Your task to perform on an android device: Open location settings Image 0: 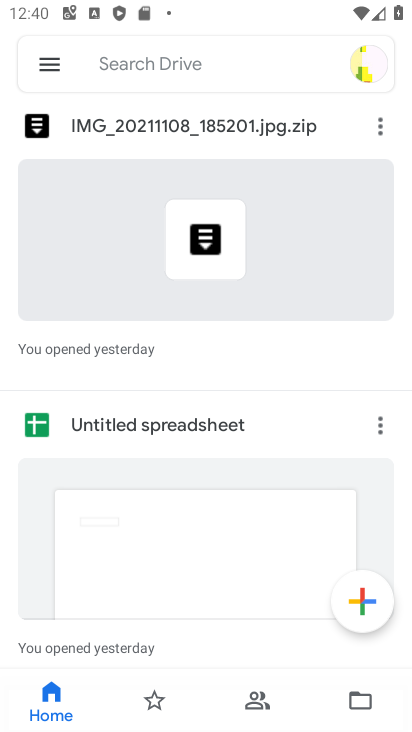
Step 0: press home button
Your task to perform on an android device: Open location settings Image 1: 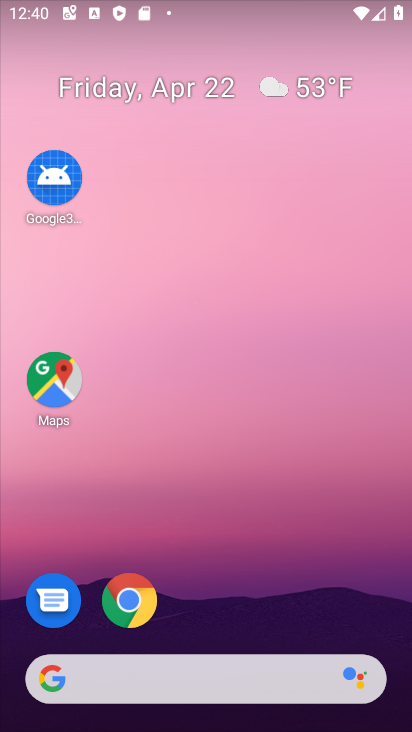
Step 1: drag from (228, 521) to (170, 76)
Your task to perform on an android device: Open location settings Image 2: 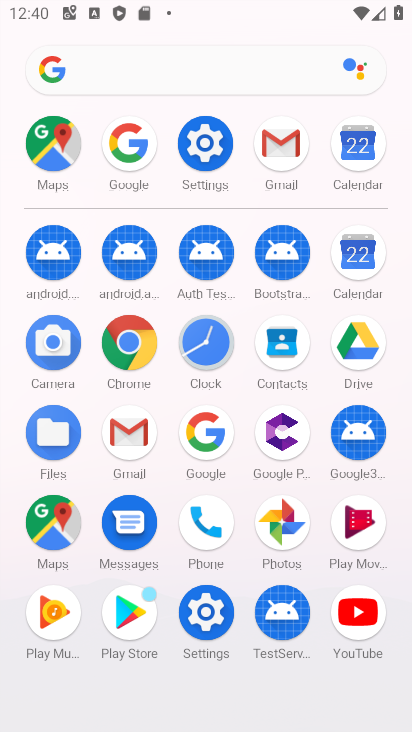
Step 2: click (198, 165)
Your task to perform on an android device: Open location settings Image 3: 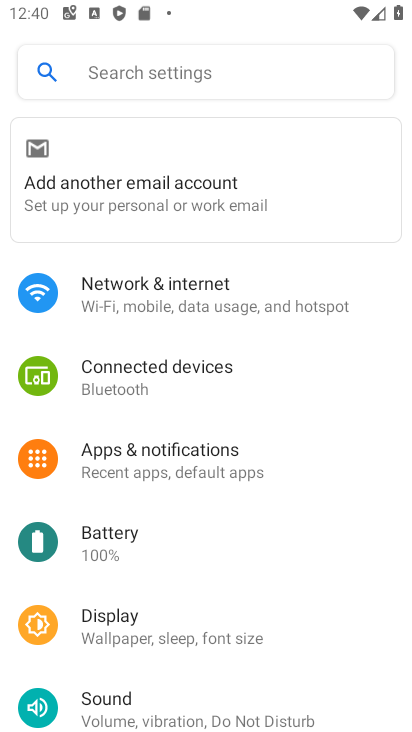
Step 3: drag from (218, 598) to (217, 228)
Your task to perform on an android device: Open location settings Image 4: 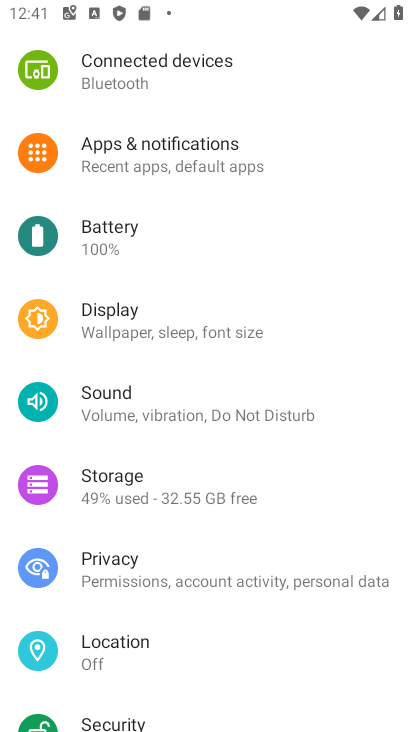
Step 4: click (184, 654)
Your task to perform on an android device: Open location settings Image 5: 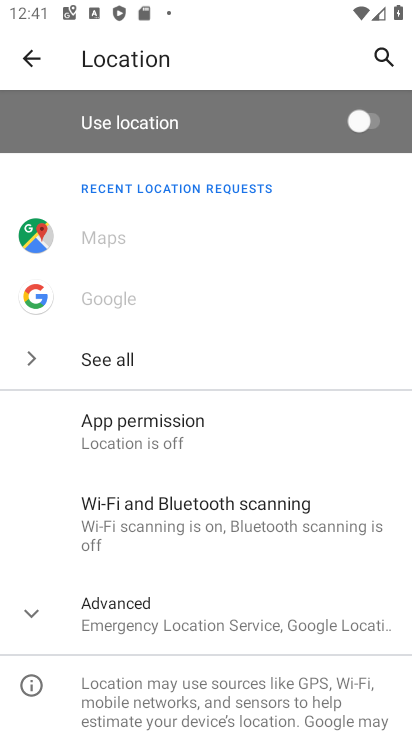
Step 5: task complete